Your task to perform on an android device: turn off wifi Image 0: 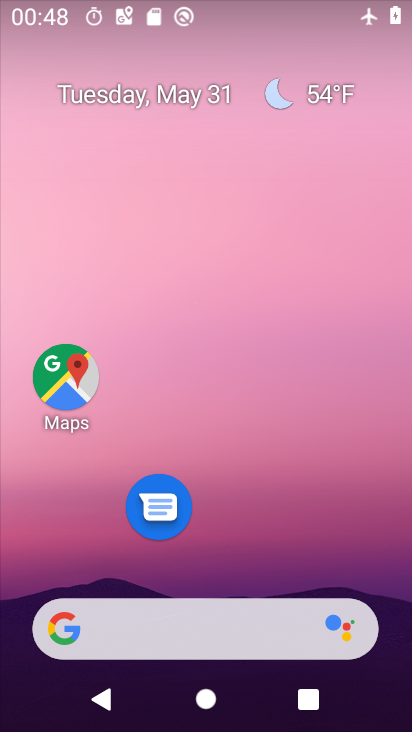
Step 0: drag from (243, 570) to (225, 30)
Your task to perform on an android device: turn off wifi Image 1: 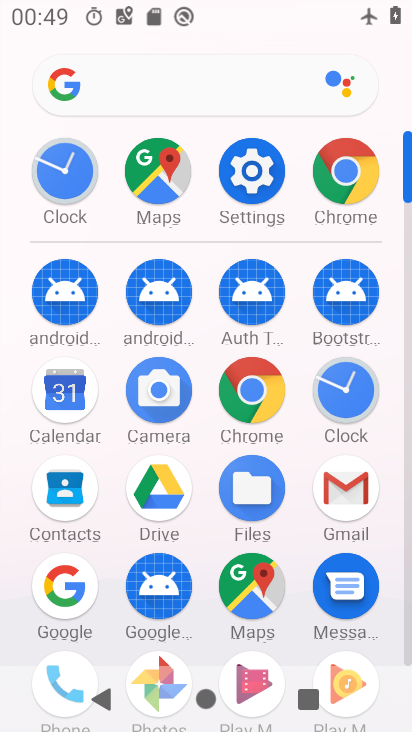
Step 1: click (253, 197)
Your task to perform on an android device: turn off wifi Image 2: 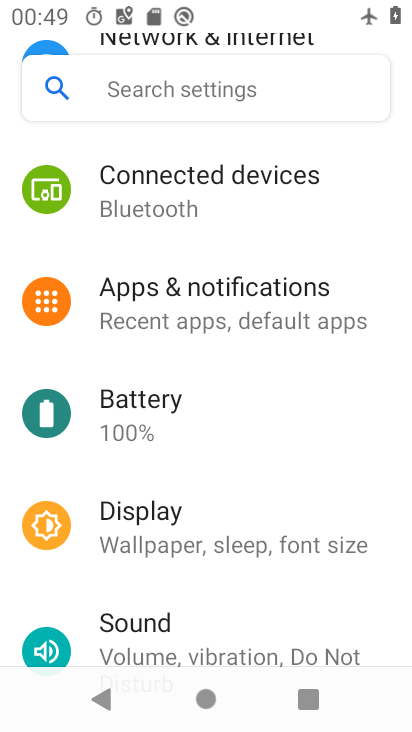
Step 2: drag from (182, 197) to (217, 536)
Your task to perform on an android device: turn off wifi Image 3: 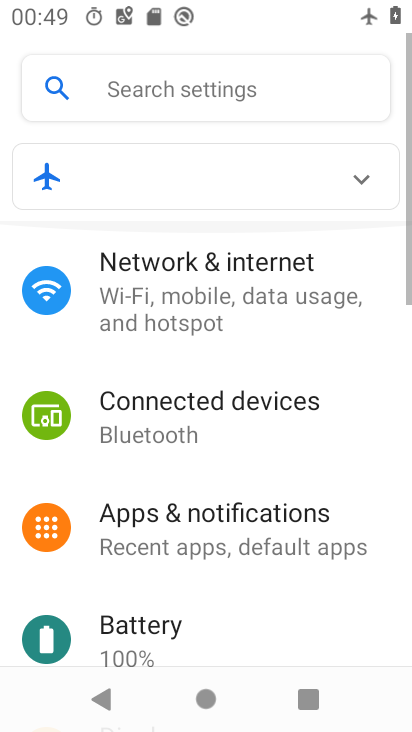
Step 3: drag from (175, 277) to (205, 438)
Your task to perform on an android device: turn off wifi Image 4: 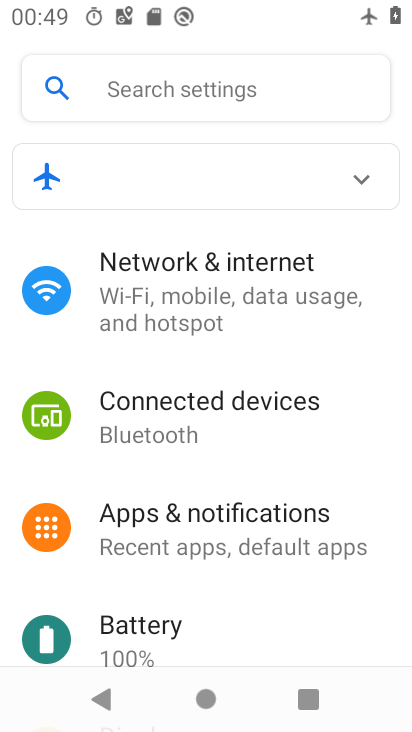
Step 4: click (189, 300)
Your task to perform on an android device: turn off wifi Image 5: 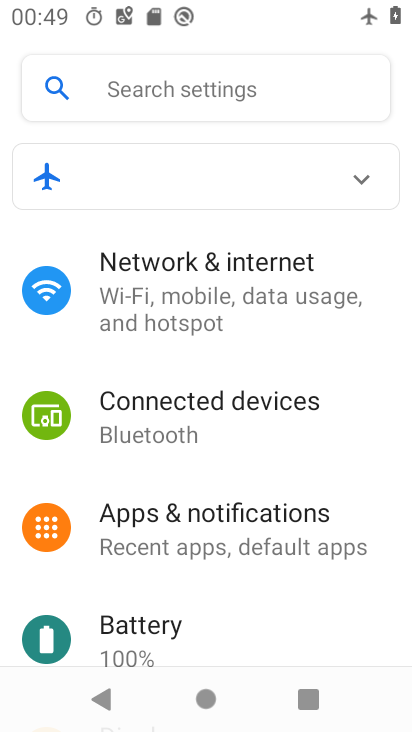
Step 5: click (189, 300)
Your task to perform on an android device: turn off wifi Image 6: 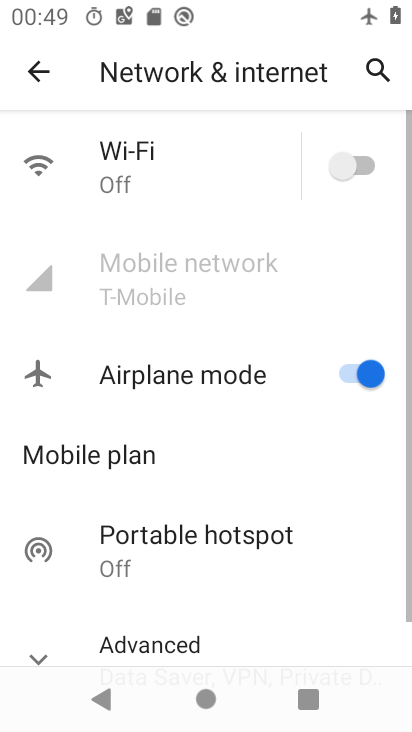
Step 6: click (189, 300)
Your task to perform on an android device: turn off wifi Image 7: 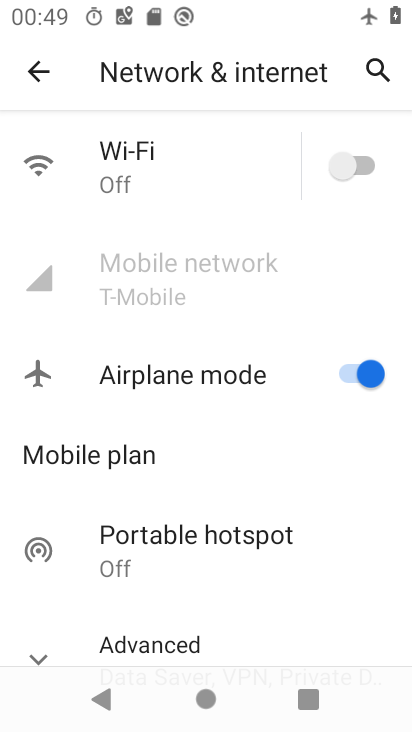
Step 7: task complete